Your task to perform on an android device: check battery use Image 0: 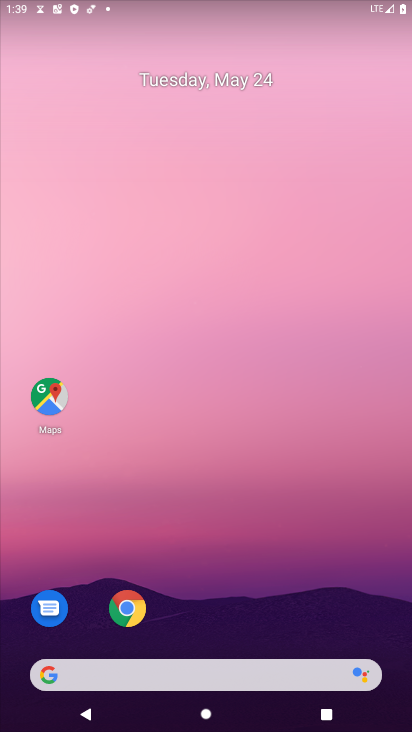
Step 0: drag from (278, 619) to (255, 128)
Your task to perform on an android device: check battery use Image 1: 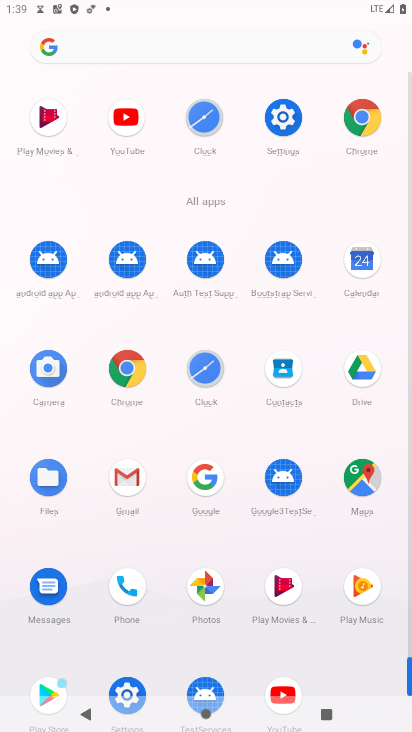
Step 1: click (282, 121)
Your task to perform on an android device: check battery use Image 2: 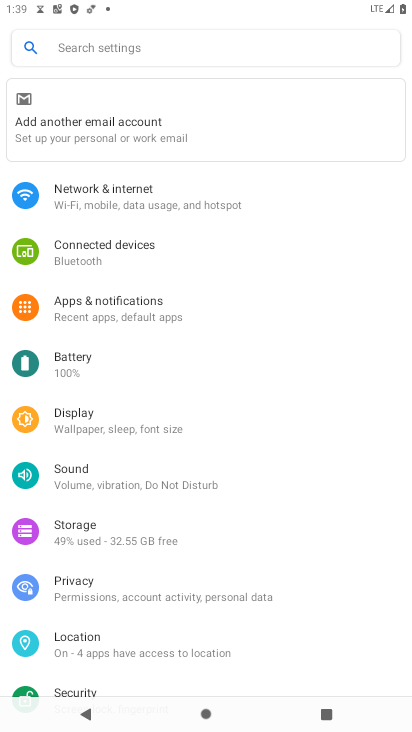
Step 2: click (125, 377)
Your task to perform on an android device: check battery use Image 3: 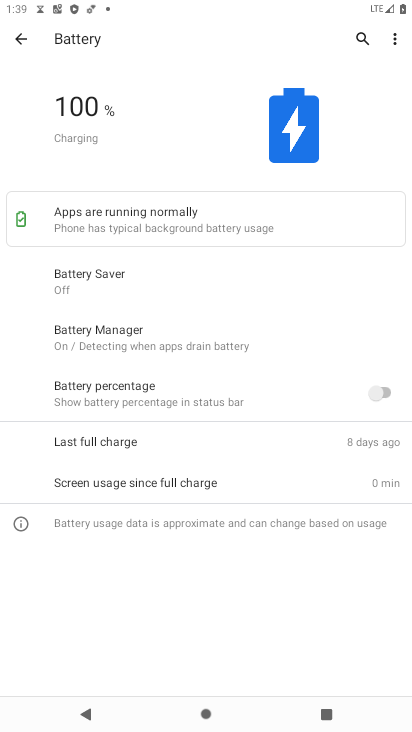
Step 3: task complete